Your task to perform on an android device: add a contact Image 0: 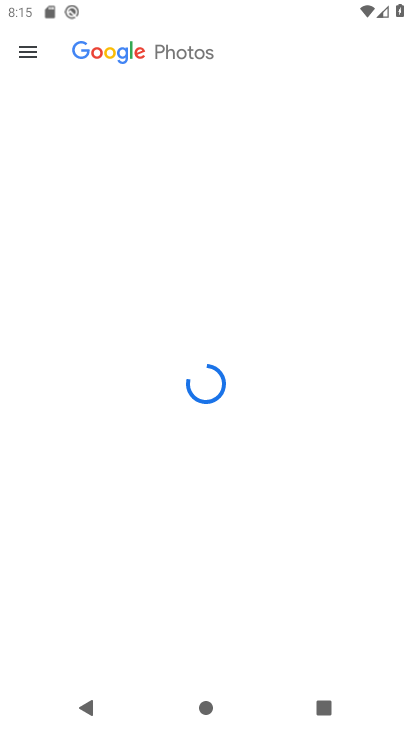
Step 0: press home button
Your task to perform on an android device: add a contact Image 1: 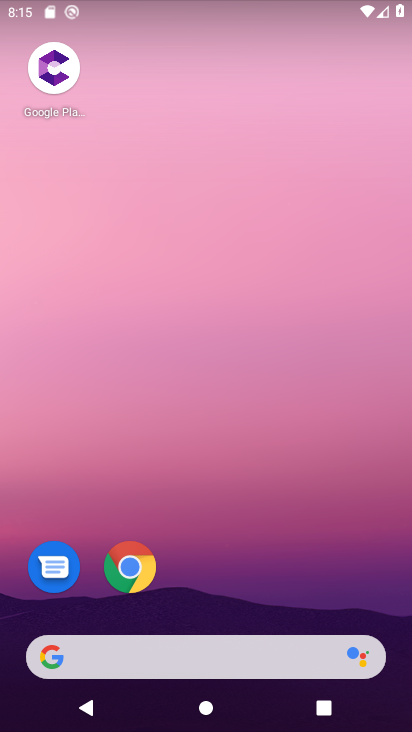
Step 1: drag from (95, 635) to (216, 152)
Your task to perform on an android device: add a contact Image 2: 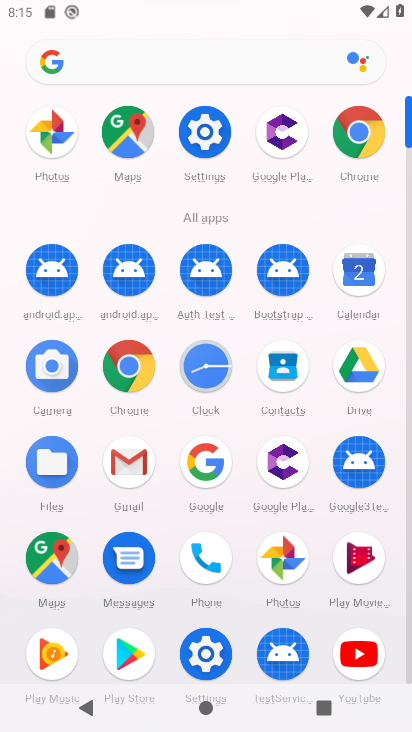
Step 2: click (273, 367)
Your task to perform on an android device: add a contact Image 3: 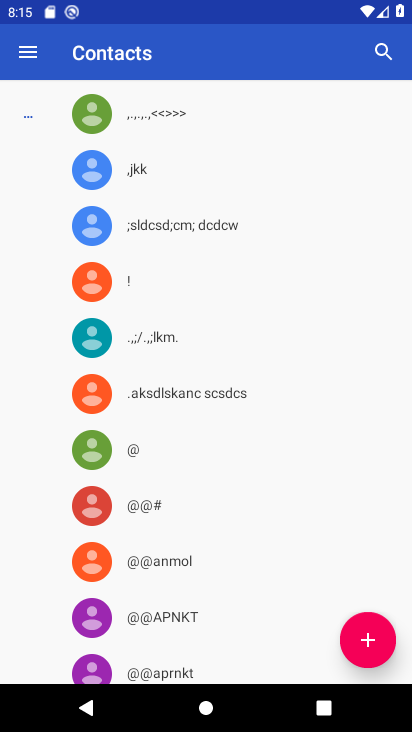
Step 3: click (388, 639)
Your task to perform on an android device: add a contact Image 4: 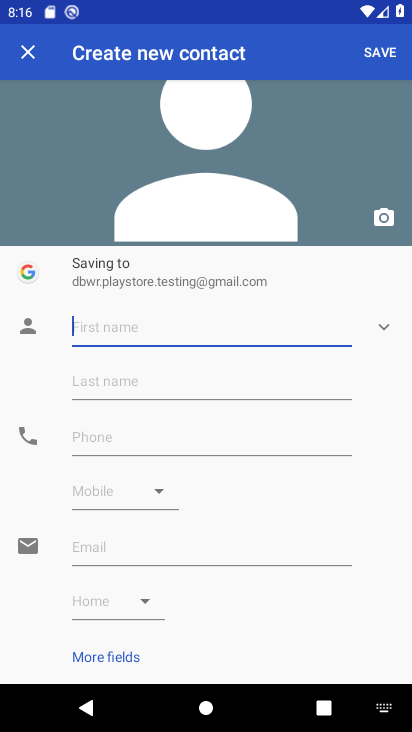
Step 4: type "shae"
Your task to perform on an android device: add a contact Image 5: 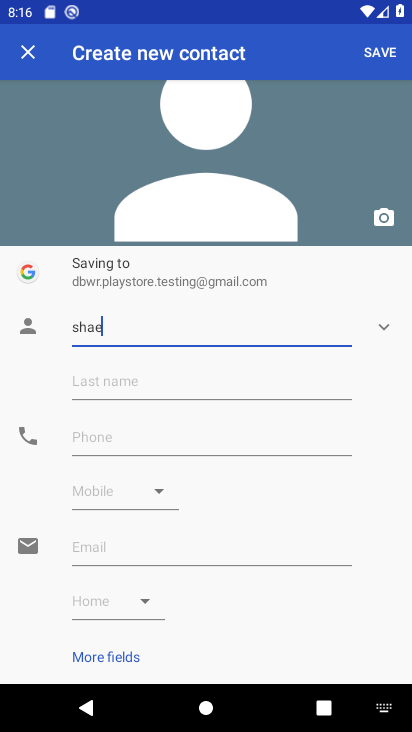
Step 5: click (117, 439)
Your task to perform on an android device: add a contact Image 6: 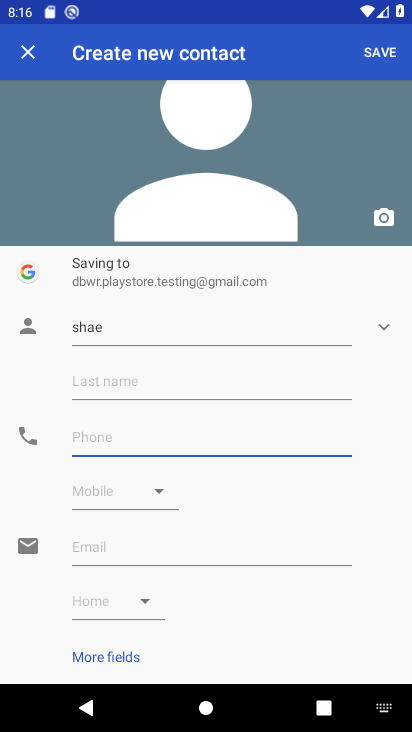
Step 6: type "999900000"
Your task to perform on an android device: add a contact Image 7: 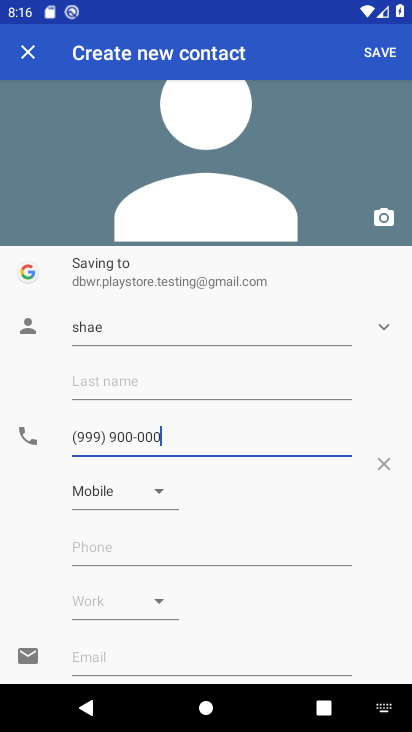
Step 7: click (384, 61)
Your task to perform on an android device: add a contact Image 8: 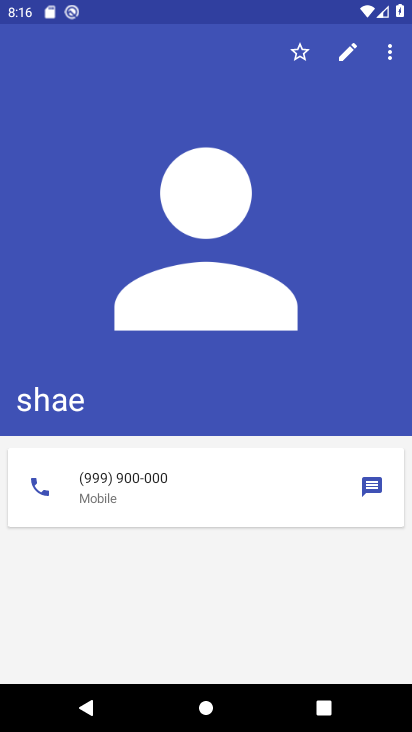
Step 8: task complete